Your task to perform on an android device: Open the Play Movies app and select the watchlist tab. Image 0: 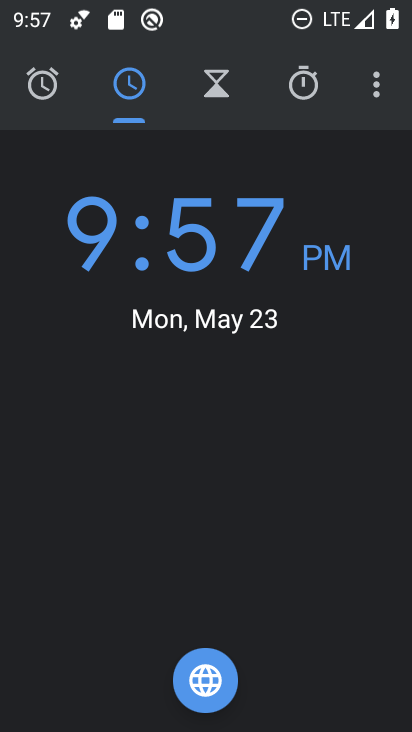
Step 0: press home button
Your task to perform on an android device: Open the Play Movies app and select the watchlist tab. Image 1: 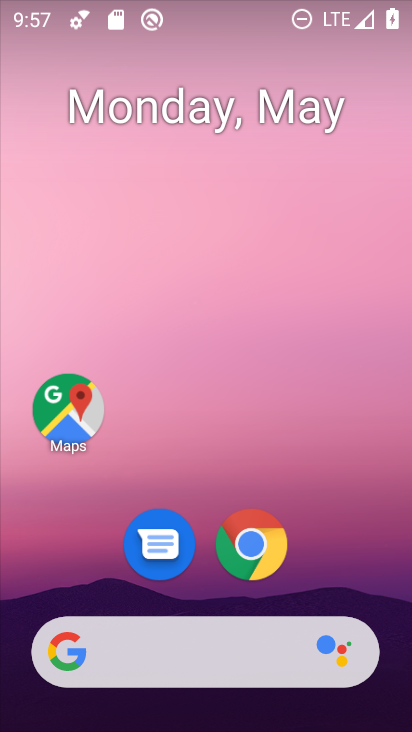
Step 1: drag from (373, 578) to (367, 81)
Your task to perform on an android device: Open the Play Movies app and select the watchlist tab. Image 2: 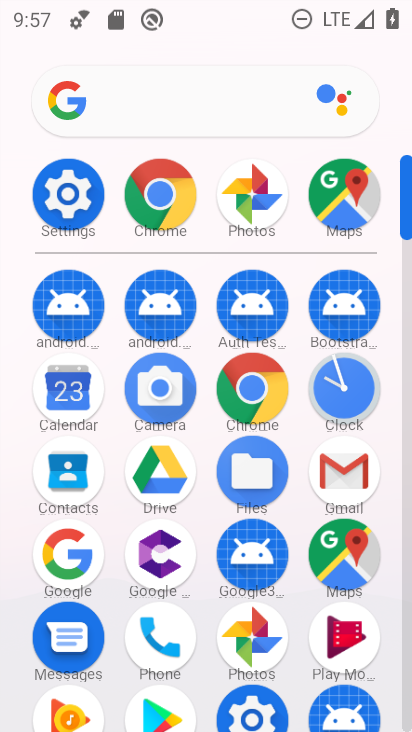
Step 2: click (344, 631)
Your task to perform on an android device: Open the Play Movies app and select the watchlist tab. Image 3: 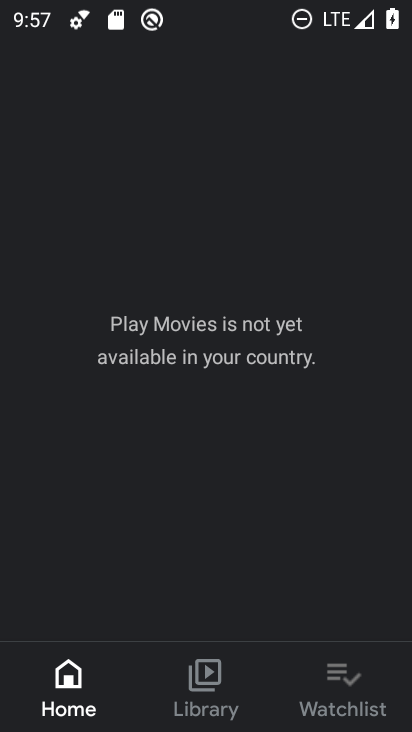
Step 3: click (347, 691)
Your task to perform on an android device: Open the Play Movies app and select the watchlist tab. Image 4: 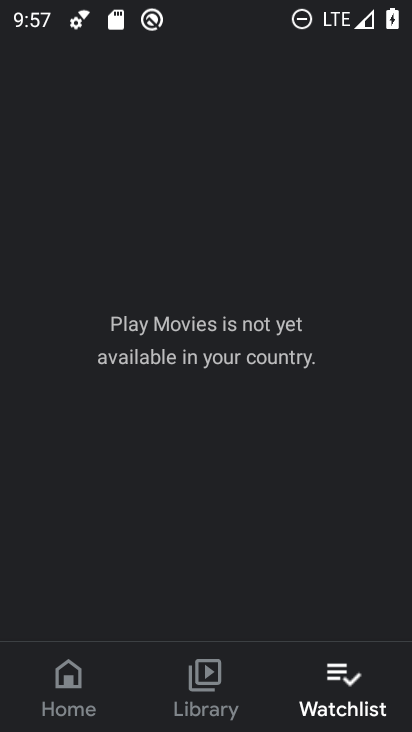
Step 4: task complete